Your task to perform on an android device: open a bookmark in the chrome app Image 0: 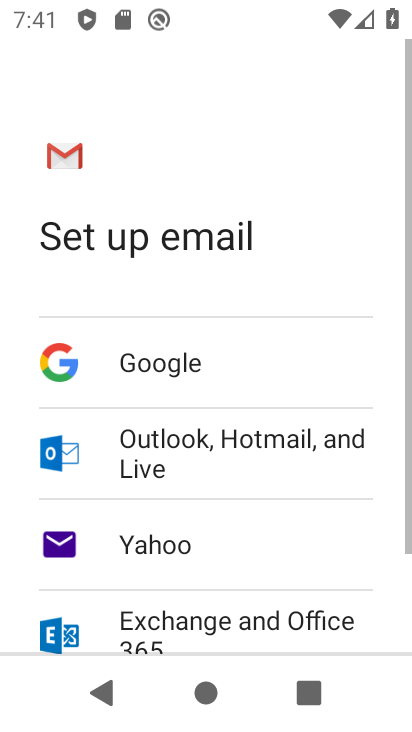
Step 0: press home button
Your task to perform on an android device: open a bookmark in the chrome app Image 1: 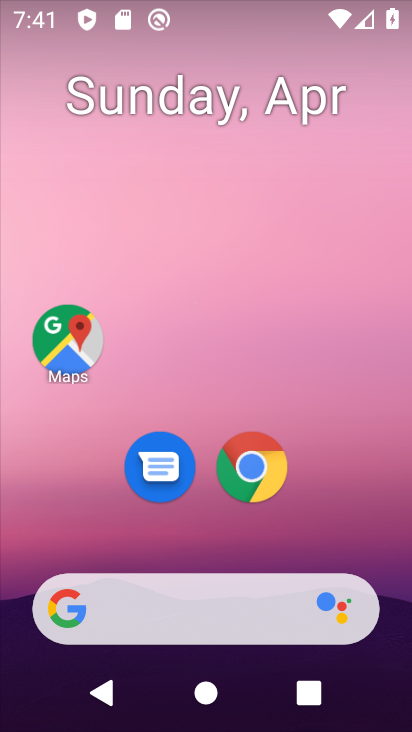
Step 1: click (250, 448)
Your task to perform on an android device: open a bookmark in the chrome app Image 2: 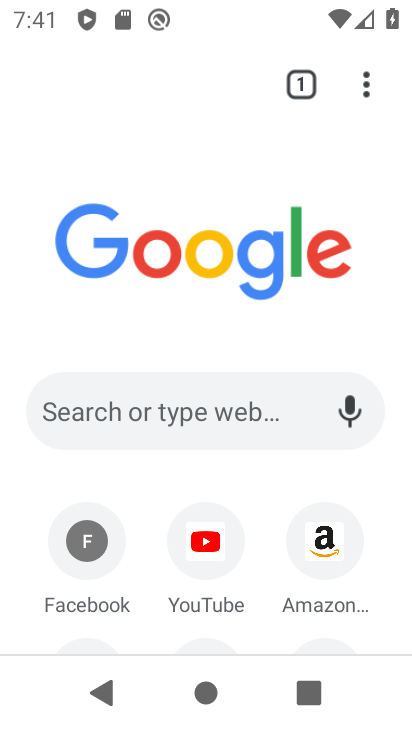
Step 2: click (366, 85)
Your task to perform on an android device: open a bookmark in the chrome app Image 3: 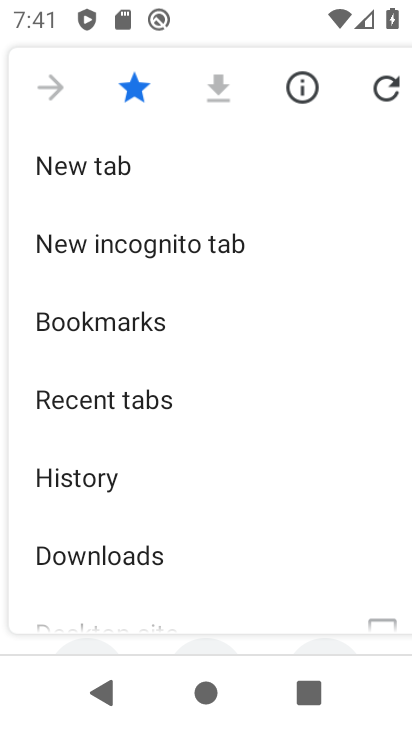
Step 3: click (161, 323)
Your task to perform on an android device: open a bookmark in the chrome app Image 4: 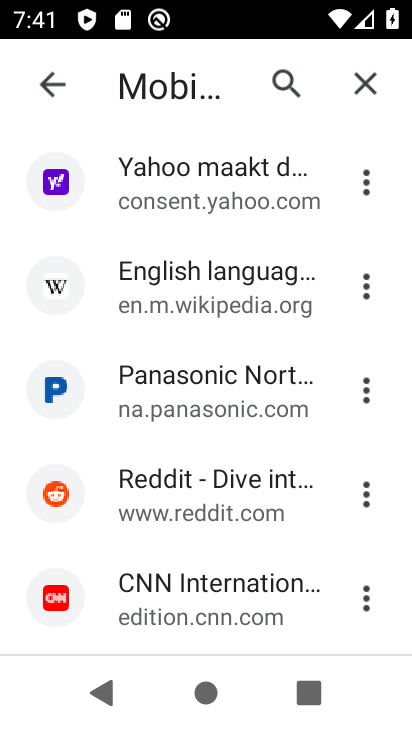
Step 4: click (142, 391)
Your task to perform on an android device: open a bookmark in the chrome app Image 5: 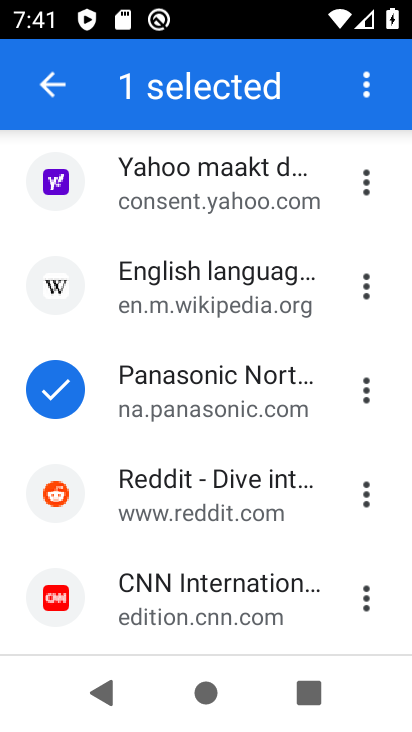
Step 5: click (142, 391)
Your task to perform on an android device: open a bookmark in the chrome app Image 6: 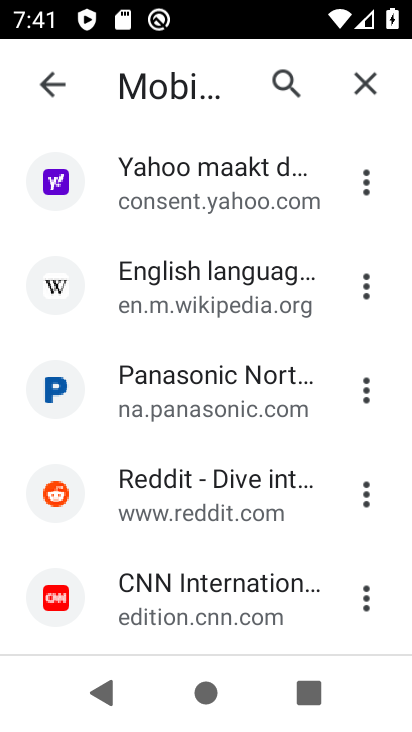
Step 6: click (142, 391)
Your task to perform on an android device: open a bookmark in the chrome app Image 7: 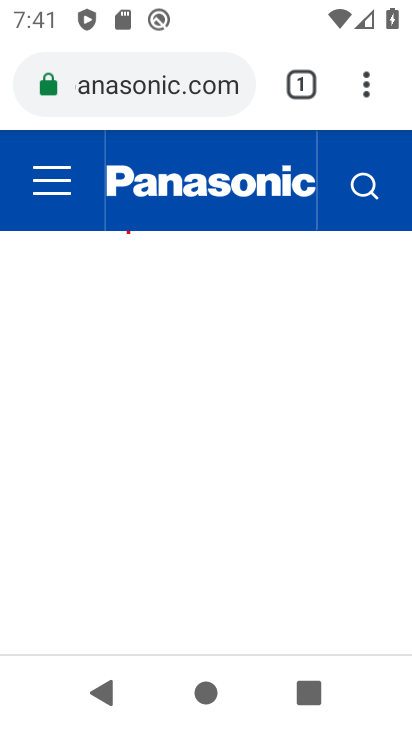
Step 7: task complete